Your task to perform on an android device: Go to network settings Image 0: 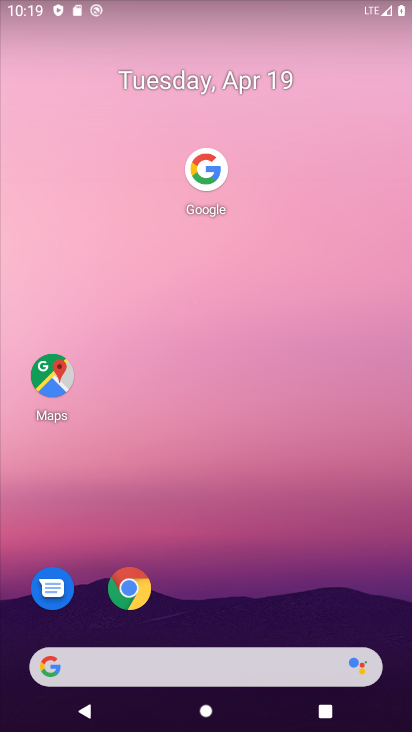
Step 0: drag from (269, 618) to (249, 42)
Your task to perform on an android device: Go to network settings Image 1: 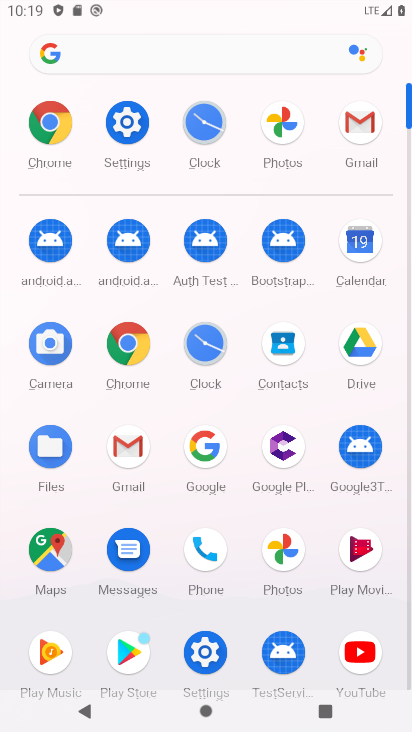
Step 1: click (132, 125)
Your task to perform on an android device: Go to network settings Image 2: 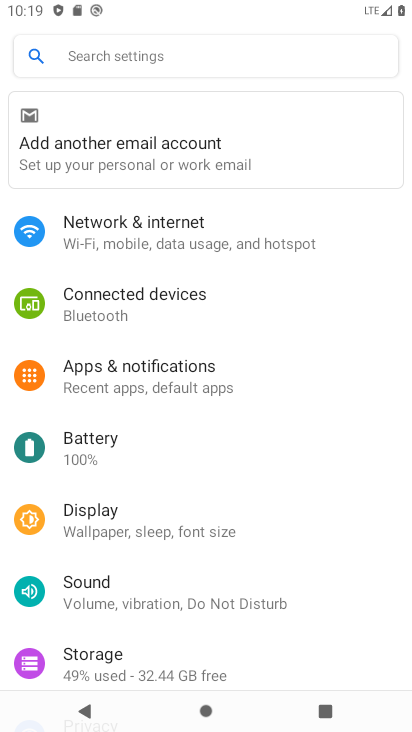
Step 2: click (121, 223)
Your task to perform on an android device: Go to network settings Image 3: 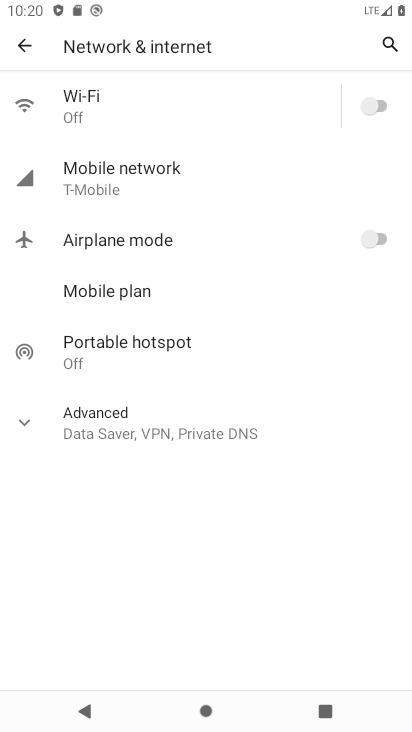
Step 3: click (133, 166)
Your task to perform on an android device: Go to network settings Image 4: 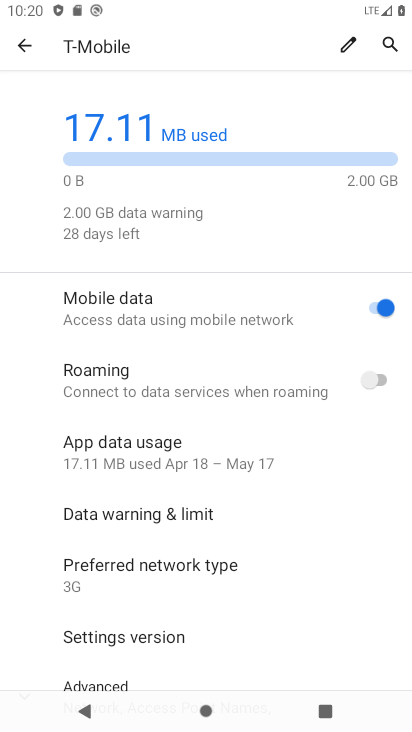
Step 4: task complete